Your task to perform on an android device: open app "DoorDash - Food Delivery" (install if not already installed), go to login, and select forgot password Image 0: 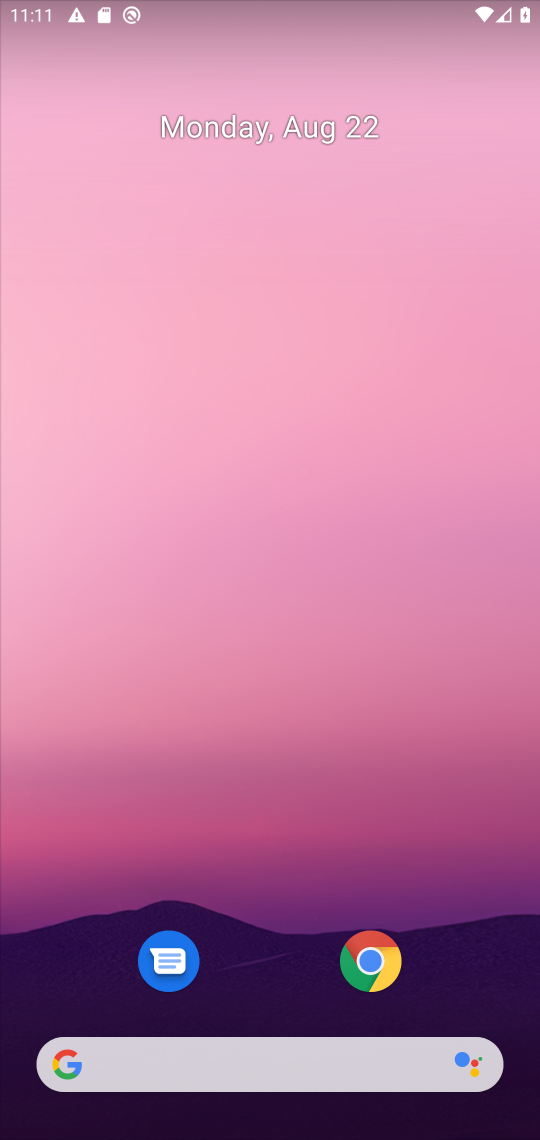
Step 0: drag from (304, 1001) to (311, 194)
Your task to perform on an android device: open app "DoorDash - Food Delivery" (install if not already installed), go to login, and select forgot password Image 1: 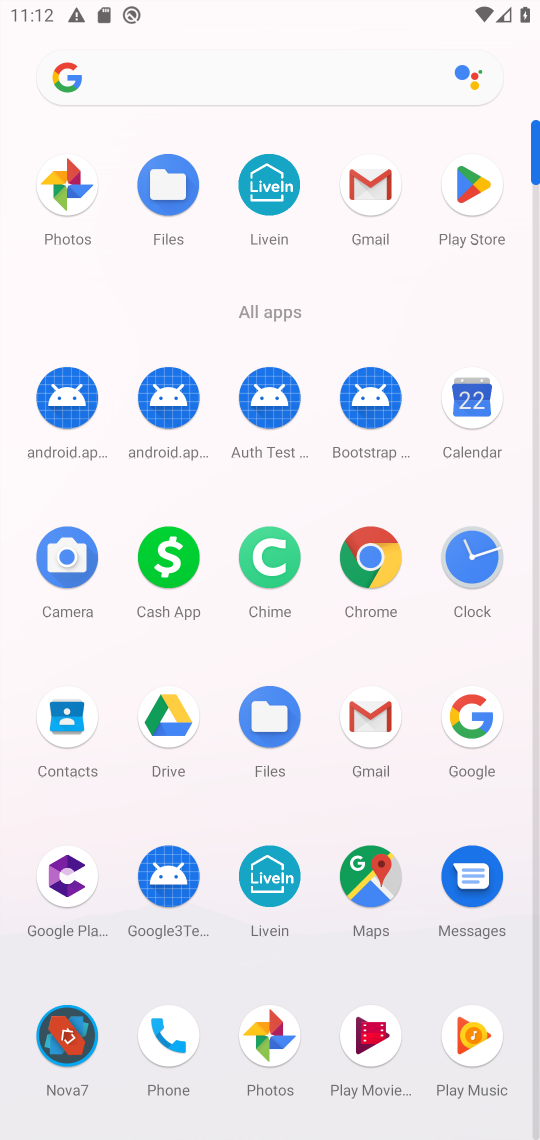
Step 1: click (218, 93)
Your task to perform on an android device: open app "DoorDash - Food Delivery" (install if not already installed), go to login, and select forgot password Image 2: 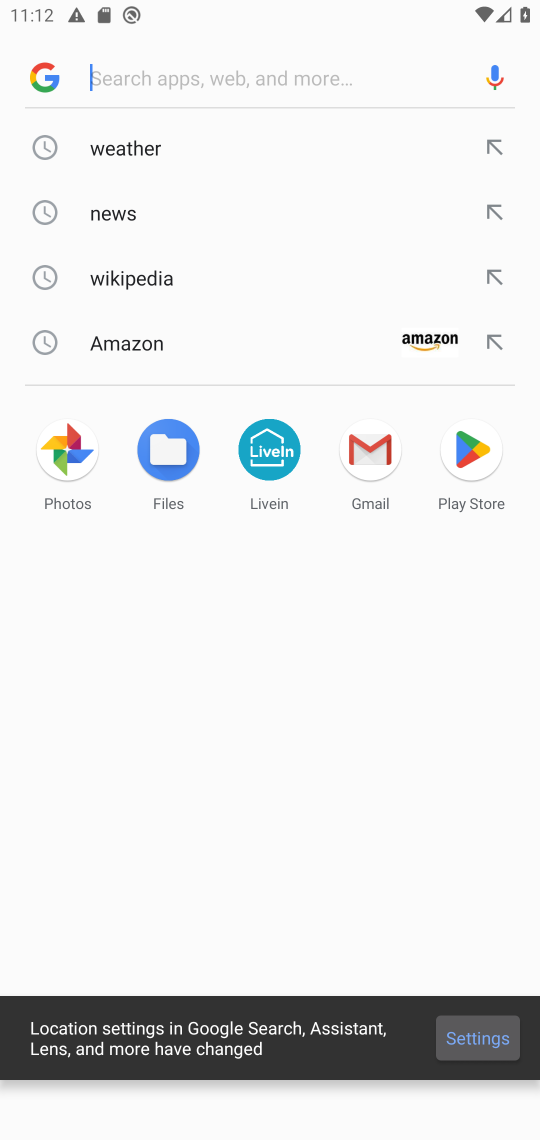
Step 2: press home button
Your task to perform on an android device: open app "DoorDash - Food Delivery" (install if not already installed), go to login, and select forgot password Image 3: 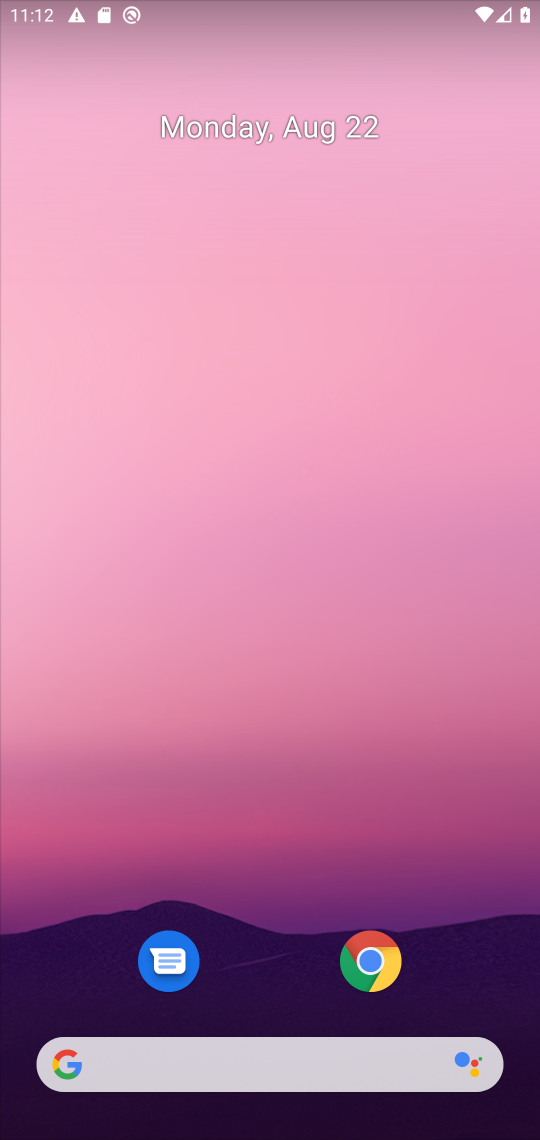
Step 3: drag from (291, 1024) to (306, 381)
Your task to perform on an android device: open app "DoorDash - Food Delivery" (install if not already installed), go to login, and select forgot password Image 4: 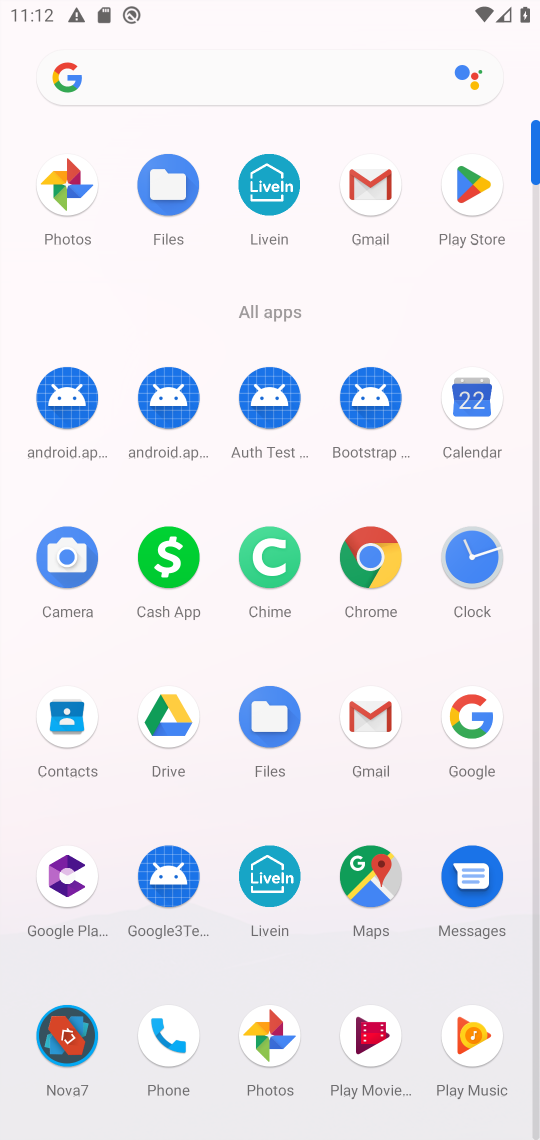
Step 4: click (465, 157)
Your task to perform on an android device: open app "DoorDash - Food Delivery" (install if not already installed), go to login, and select forgot password Image 5: 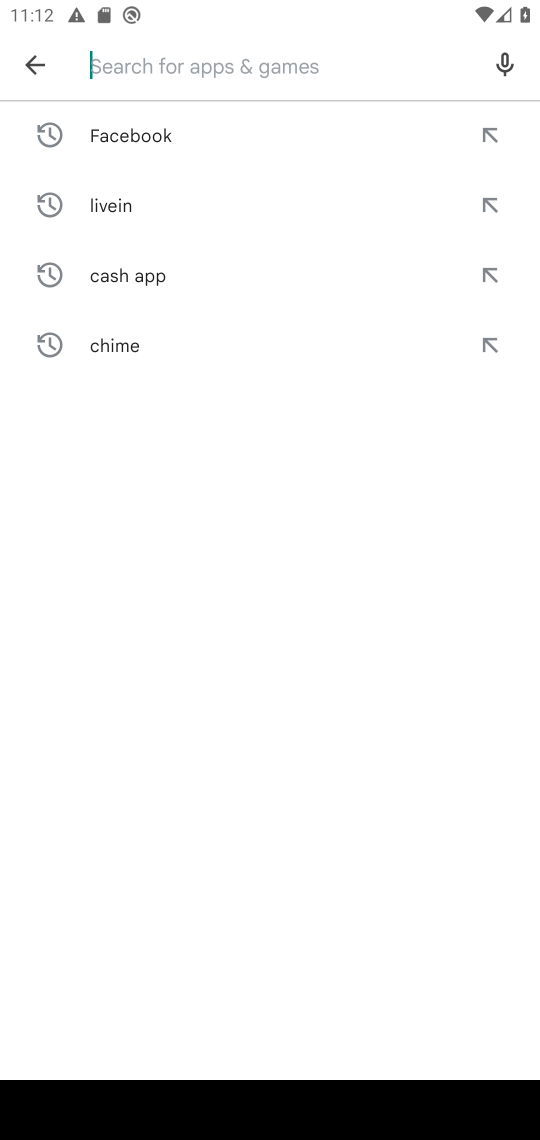
Step 5: click (328, 61)
Your task to perform on an android device: open app "DoorDash - Food Delivery" (install if not already installed), go to login, and select forgot password Image 6: 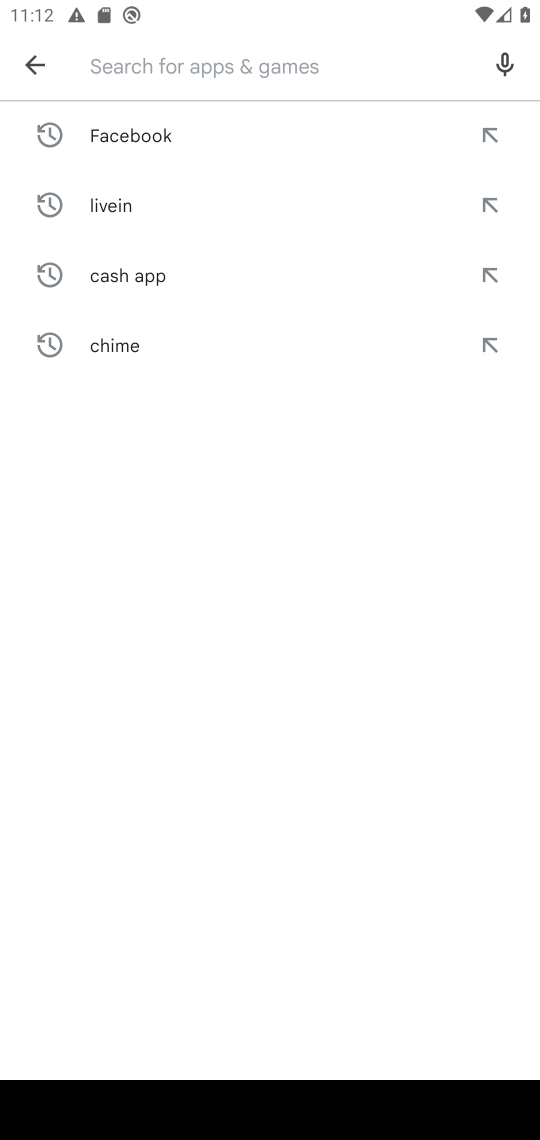
Step 6: type "door dash"
Your task to perform on an android device: open app "DoorDash - Food Delivery" (install if not already installed), go to login, and select forgot password Image 7: 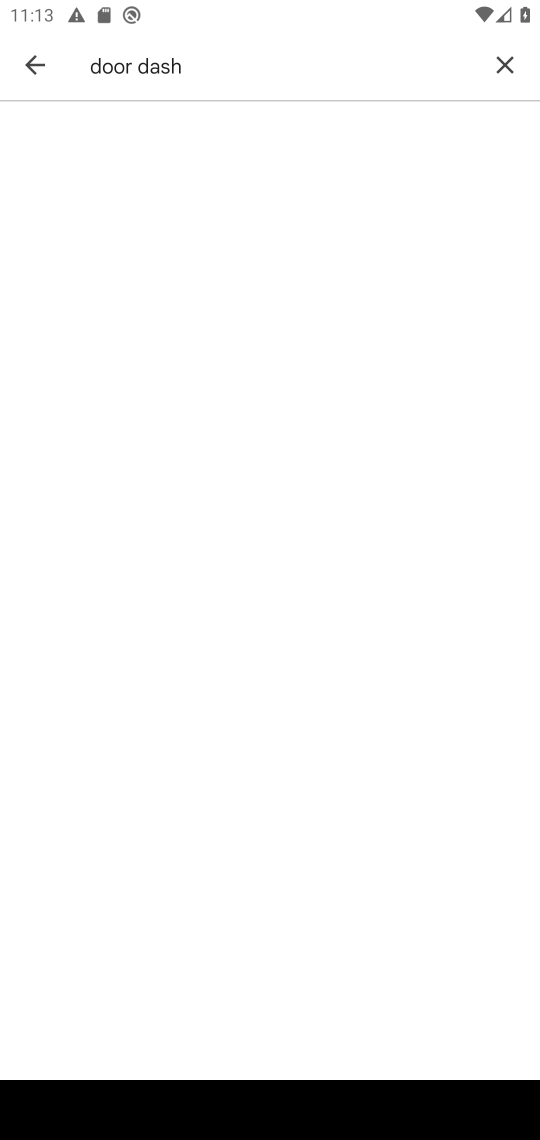
Step 7: task complete